Your task to perform on an android device: delete the emails in spam in the gmail app Image 0: 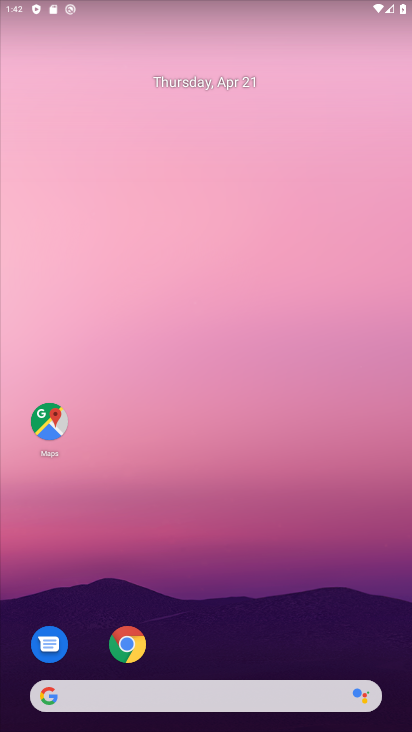
Step 0: click (290, 29)
Your task to perform on an android device: delete the emails in spam in the gmail app Image 1: 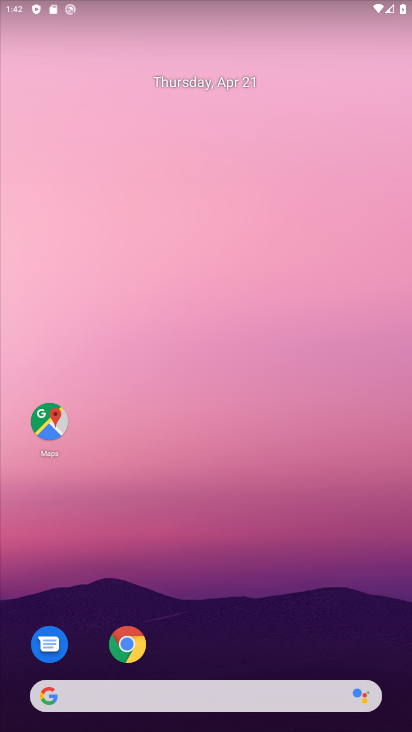
Step 1: drag from (230, 636) to (141, 196)
Your task to perform on an android device: delete the emails in spam in the gmail app Image 2: 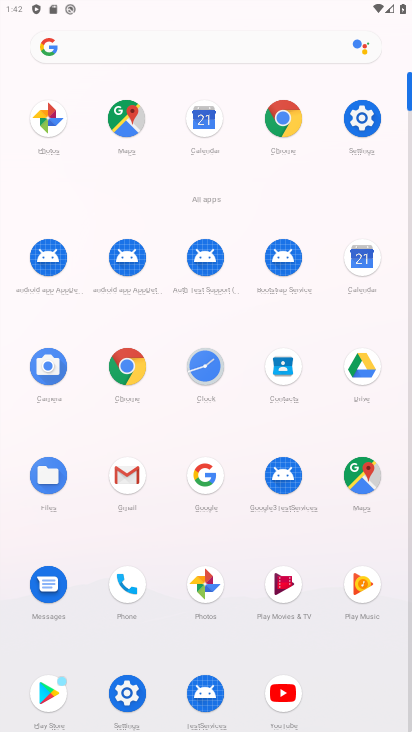
Step 2: click (121, 473)
Your task to perform on an android device: delete the emails in spam in the gmail app Image 3: 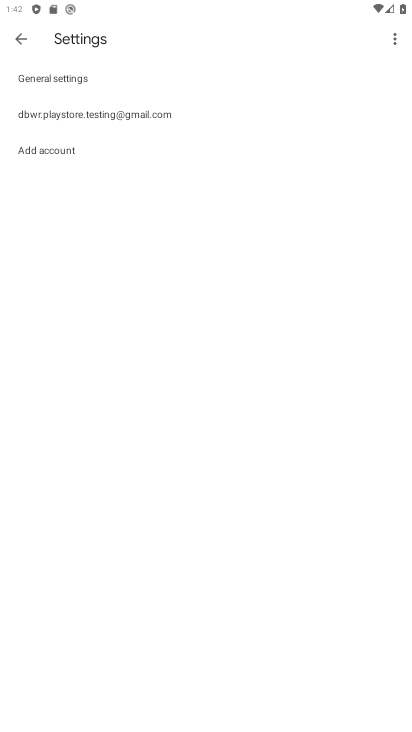
Step 3: click (197, 117)
Your task to perform on an android device: delete the emails in spam in the gmail app Image 4: 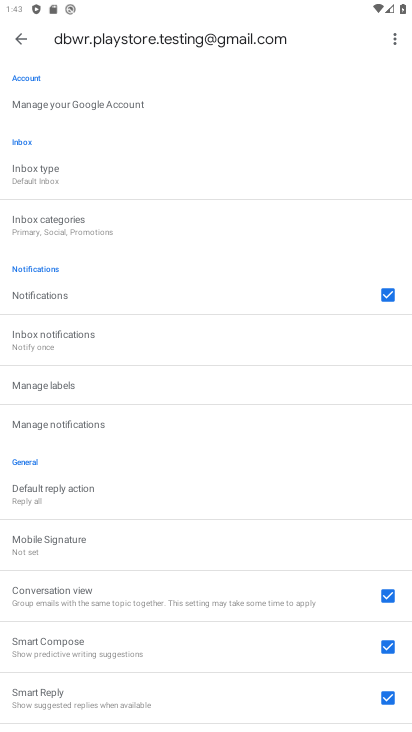
Step 4: press back button
Your task to perform on an android device: delete the emails in spam in the gmail app Image 5: 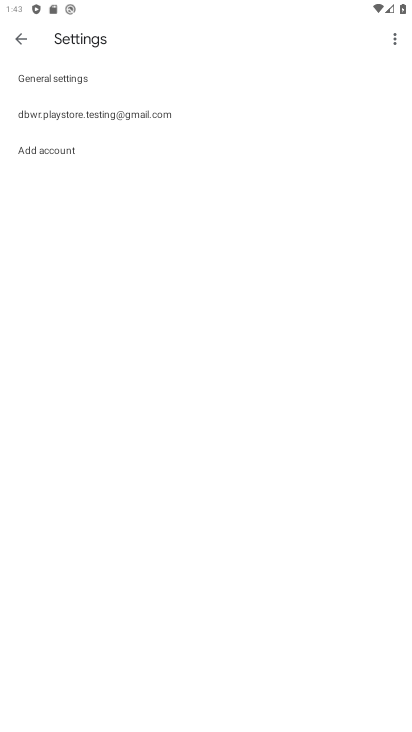
Step 5: press back button
Your task to perform on an android device: delete the emails in spam in the gmail app Image 6: 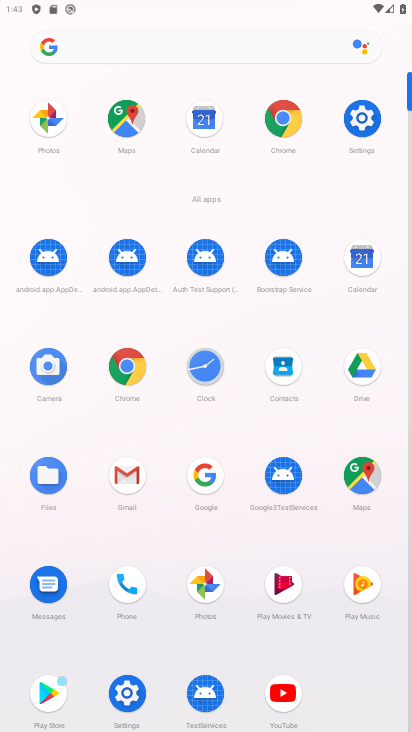
Step 6: click (126, 477)
Your task to perform on an android device: delete the emails in spam in the gmail app Image 7: 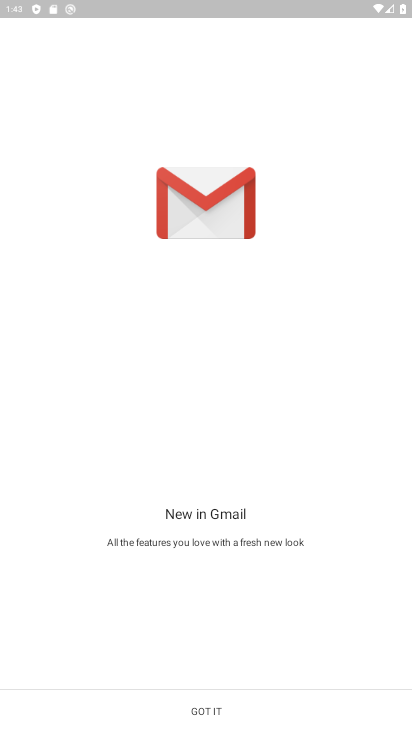
Step 7: click (207, 702)
Your task to perform on an android device: delete the emails in spam in the gmail app Image 8: 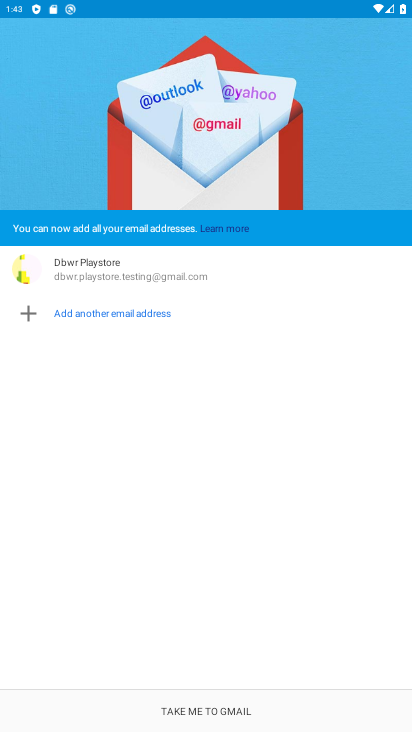
Step 8: click (207, 702)
Your task to perform on an android device: delete the emails in spam in the gmail app Image 9: 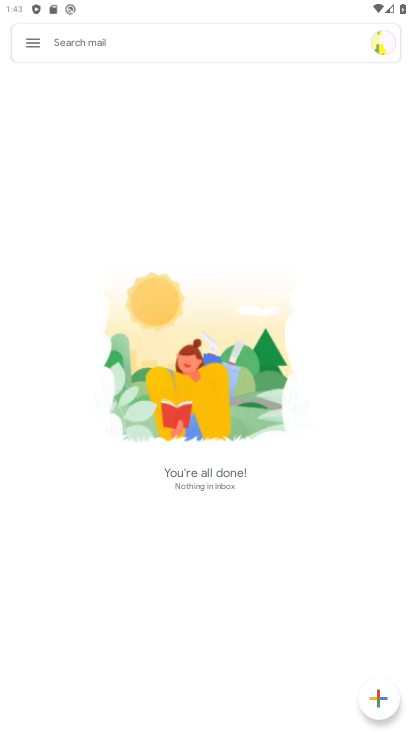
Step 9: click (37, 41)
Your task to perform on an android device: delete the emails in spam in the gmail app Image 10: 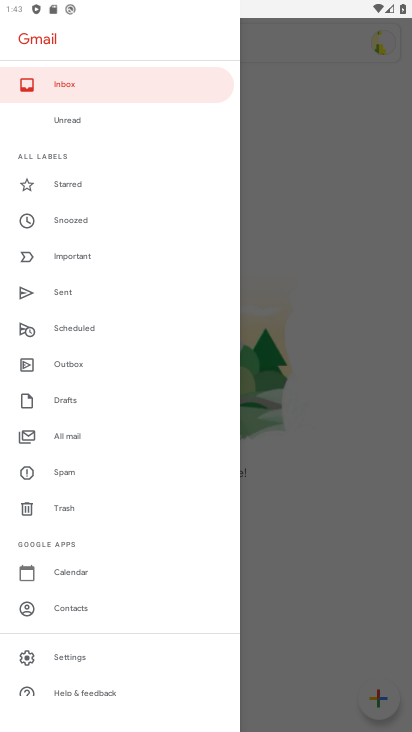
Step 10: click (88, 470)
Your task to perform on an android device: delete the emails in spam in the gmail app Image 11: 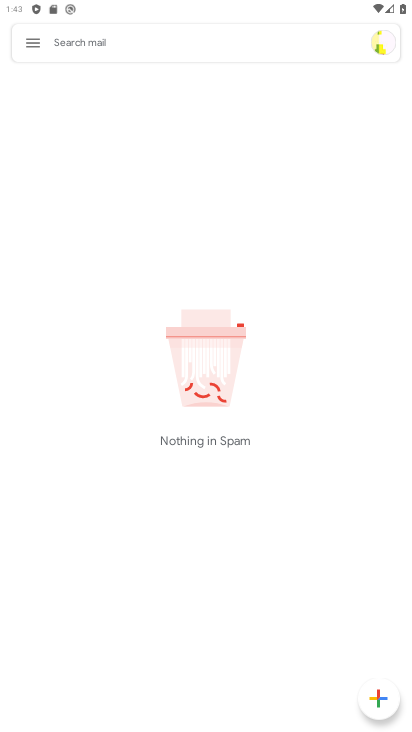
Step 11: task complete